Your task to perform on an android device: Go to Google maps Image 0: 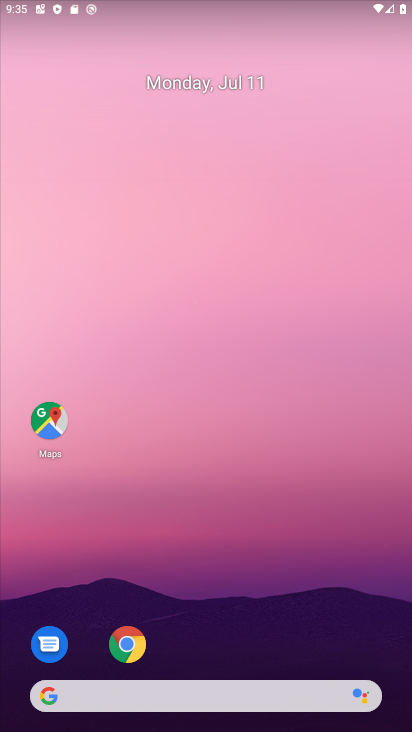
Step 0: click (46, 418)
Your task to perform on an android device: Go to Google maps Image 1: 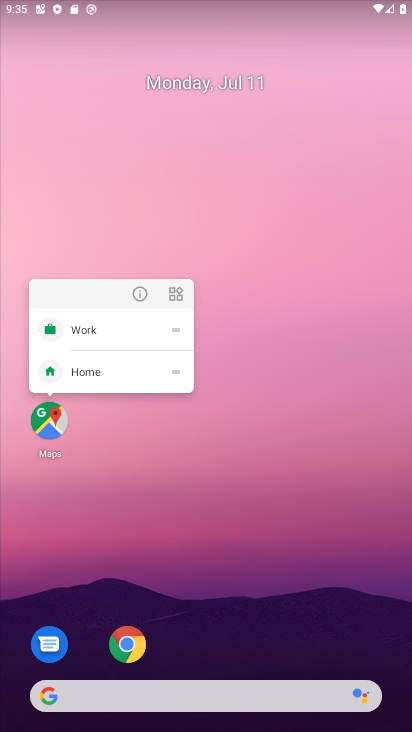
Step 1: click (46, 418)
Your task to perform on an android device: Go to Google maps Image 2: 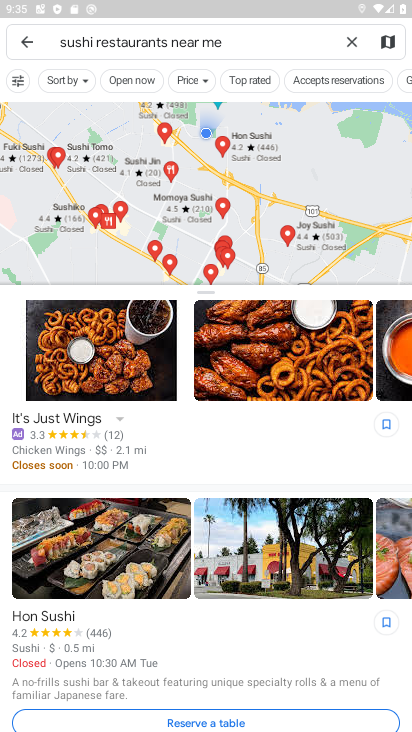
Step 2: click (350, 43)
Your task to perform on an android device: Go to Google maps Image 3: 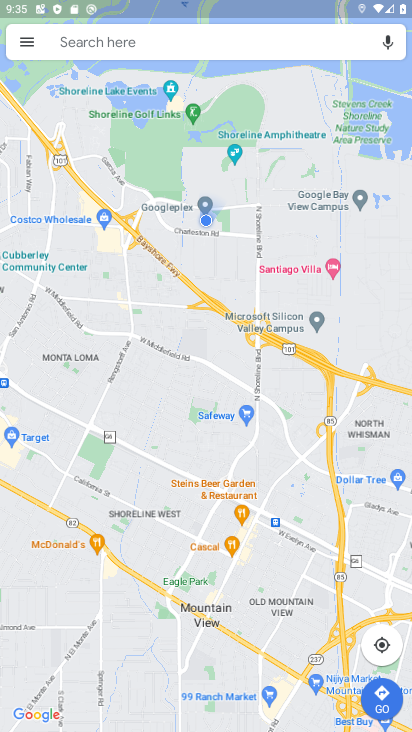
Step 3: click (26, 42)
Your task to perform on an android device: Go to Google maps Image 4: 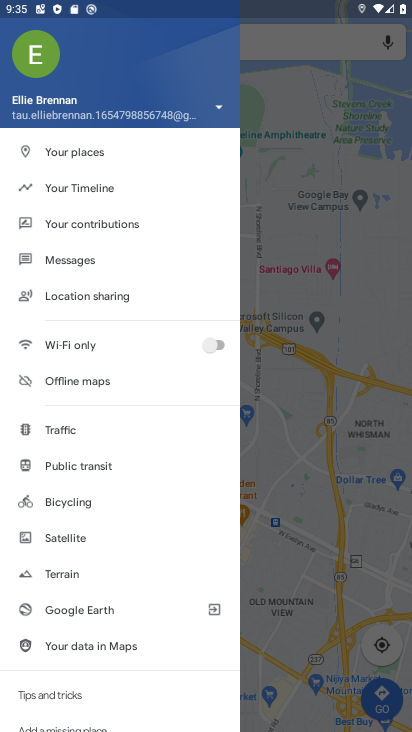
Step 4: task complete